Your task to perform on an android device: turn off smart reply in the gmail app Image 0: 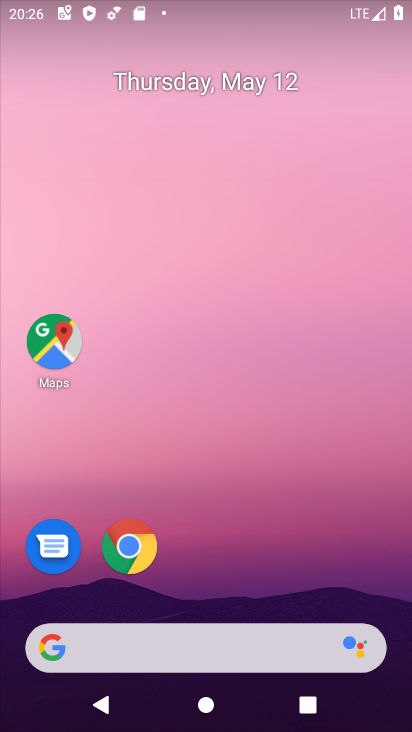
Step 0: drag from (231, 584) to (282, 89)
Your task to perform on an android device: turn off smart reply in the gmail app Image 1: 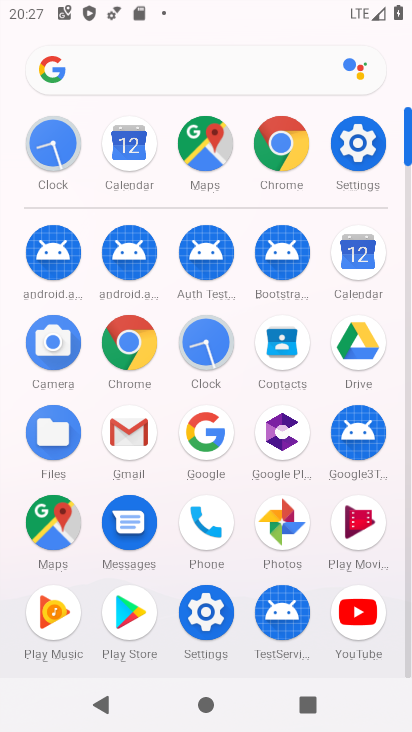
Step 1: click (132, 437)
Your task to perform on an android device: turn off smart reply in the gmail app Image 2: 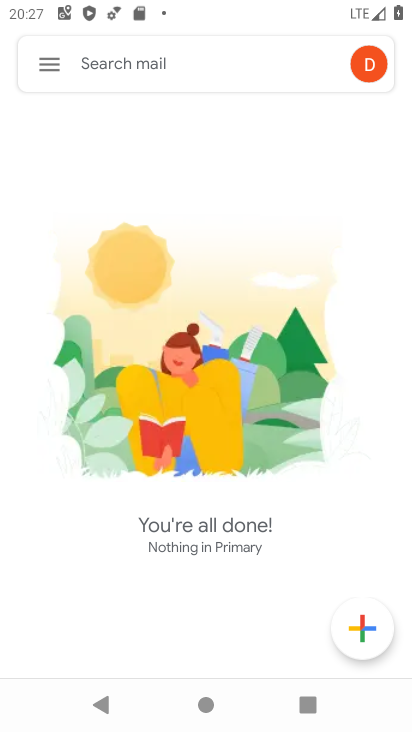
Step 2: click (55, 67)
Your task to perform on an android device: turn off smart reply in the gmail app Image 3: 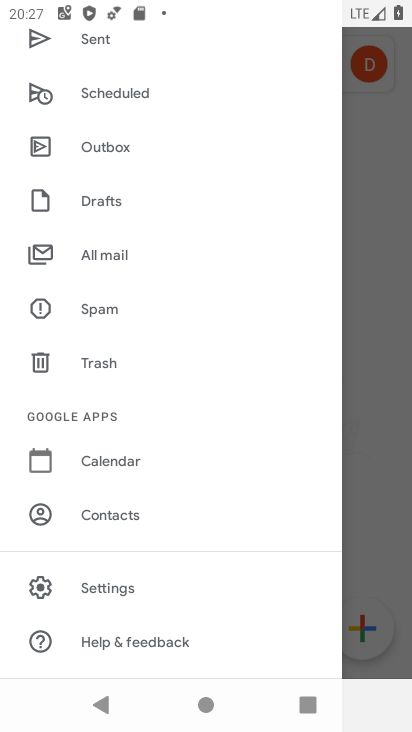
Step 3: click (104, 592)
Your task to perform on an android device: turn off smart reply in the gmail app Image 4: 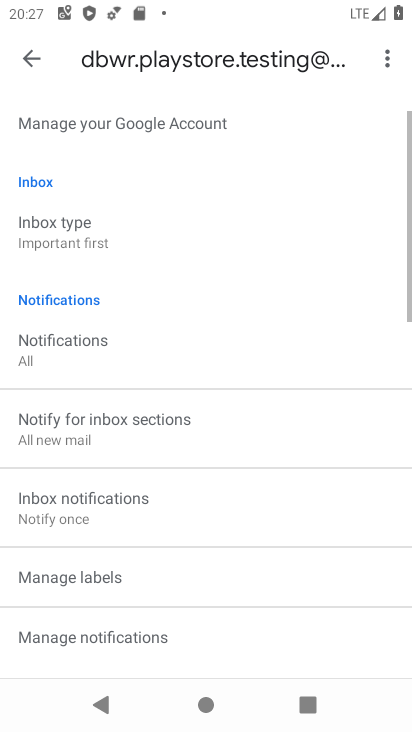
Step 4: drag from (124, 578) to (186, 154)
Your task to perform on an android device: turn off smart reply in the gmail app Image 5: 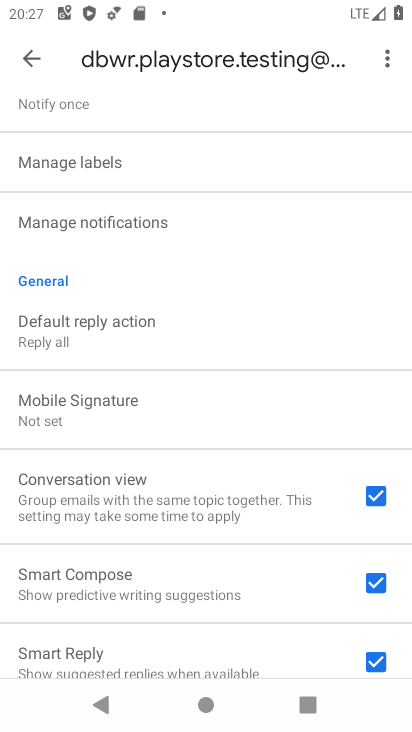
Step 5: click (367, 662)
Your task to perform on an android device: turn off smart reply in the gmail app Image 6: 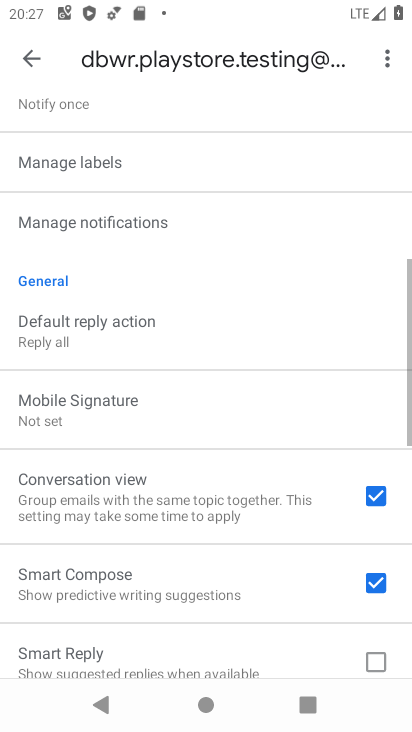
Step 6: task complete